Your task to perform on an android device: move a message to another label in the gmail app Image 0: 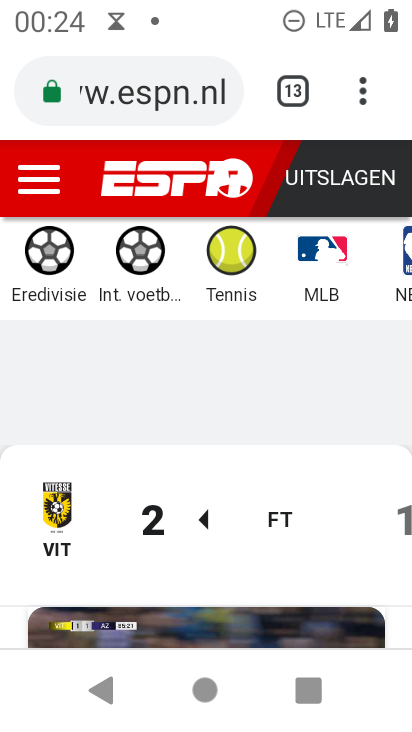
Step 0: press home button
Your task to perform on an android device: move a message to another label in the gmail app Image 1: 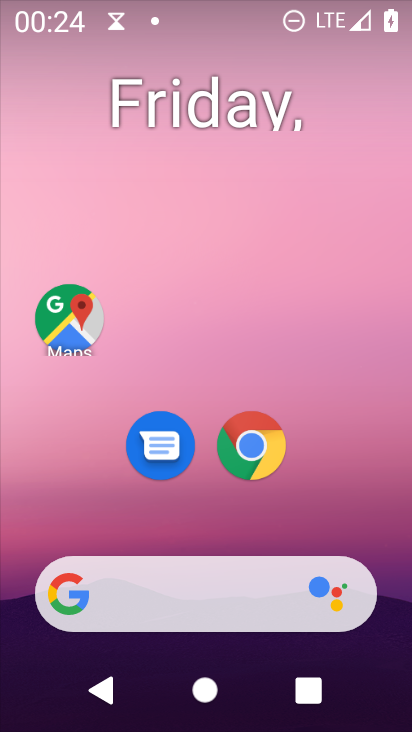
Step 1: drag from (233, 725) to (232, 101)
Your task to perform on an android device: move a message to another label in the gmail app Image 2: 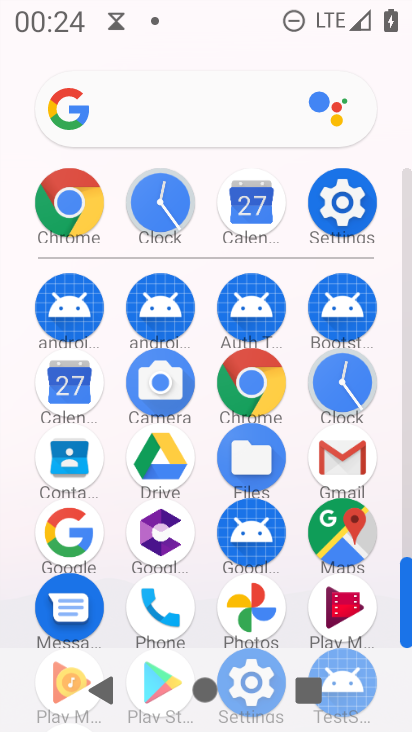
Step 2: click (347, 455)
Your task to perform on an android device: move a message to another label in the gmail app Image 3: 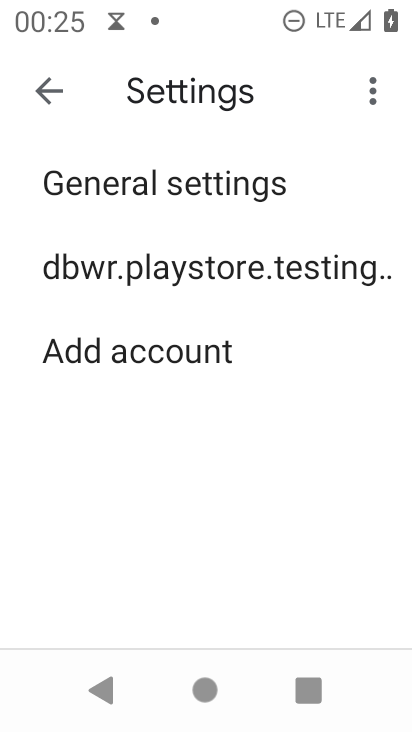
Step 3: click (51, 90)
Your task to perform on an android device: move a message to another label in the gmail app Image 4: 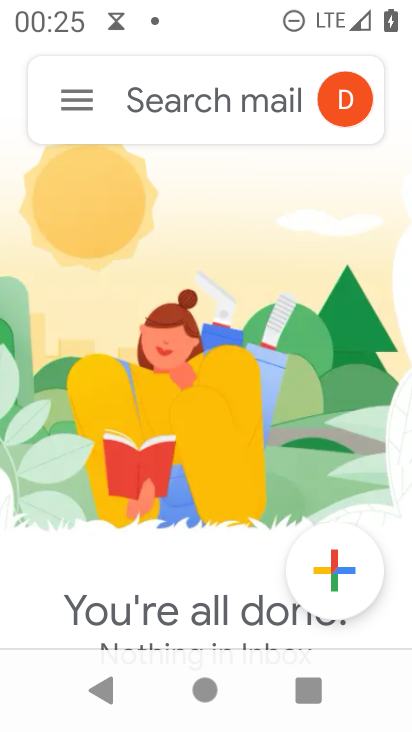
Step 4: task complete